Your task to perform on an android device: change the clock display to digital Image 0: 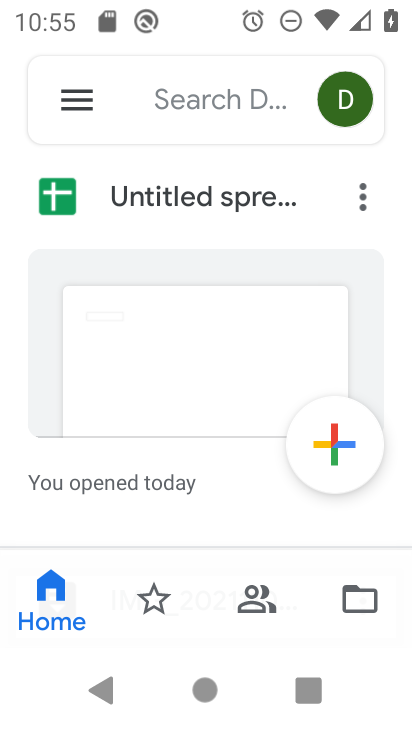
Step 0: press home button
Your task to perform on an android device: change the clock display to digital Image 1: 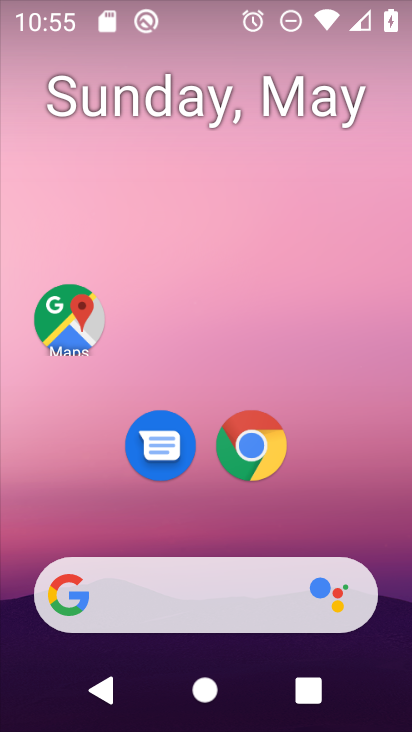
Step 1: drag from (186, 654) to (209, 147)
Your task to perform on an android device: change the clock display to digital Image 2: 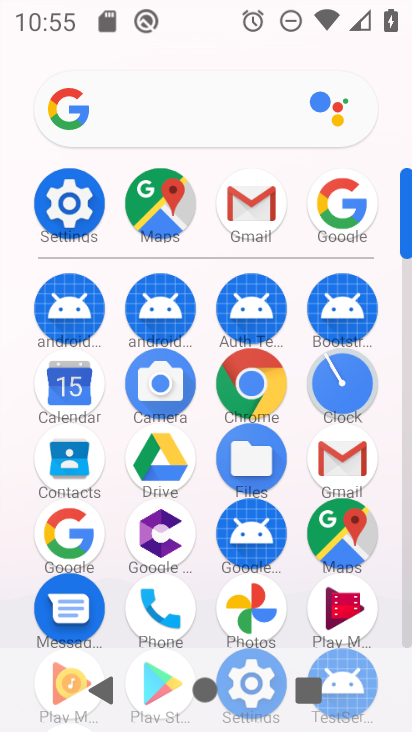
Step 2: click (359, 384)
Your task to perform on an android device: change the clock display to digital Image 3: 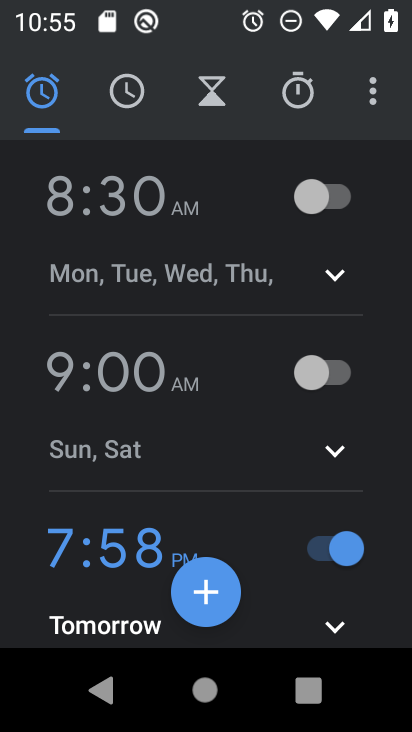
Step 3: click (366, 108)
Your task to perform on an android device: change the clock display to digital Image 4: 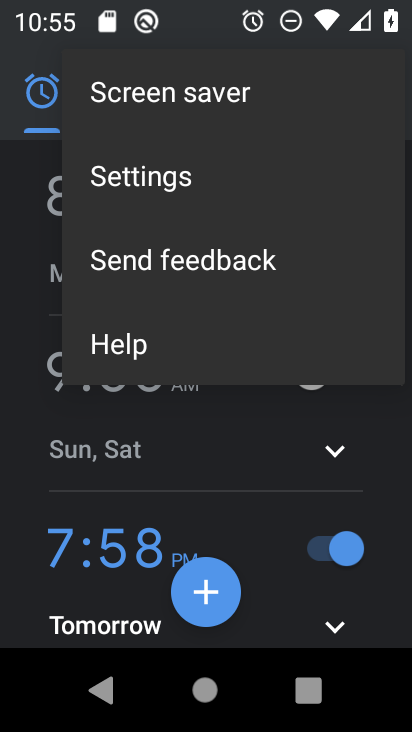
Step 4: click (174, 196)
Your task to perform on an android device: change the clock display to digital Image 5: 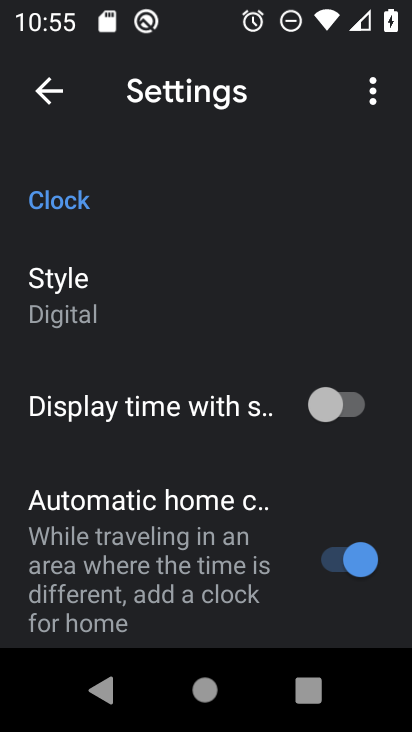
Step 5: click (137, 301)
Your task to perform on an android device: change the clock display to digital Image 6: 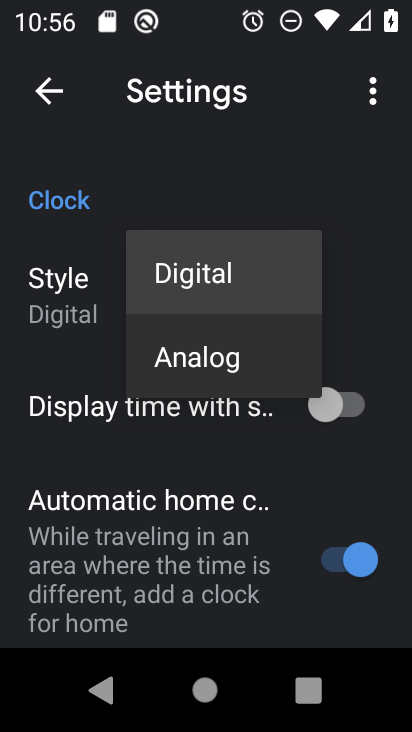
Step 6: task complete